Your task to perform on an android device: Show me the alarms in the clock app Image 0: 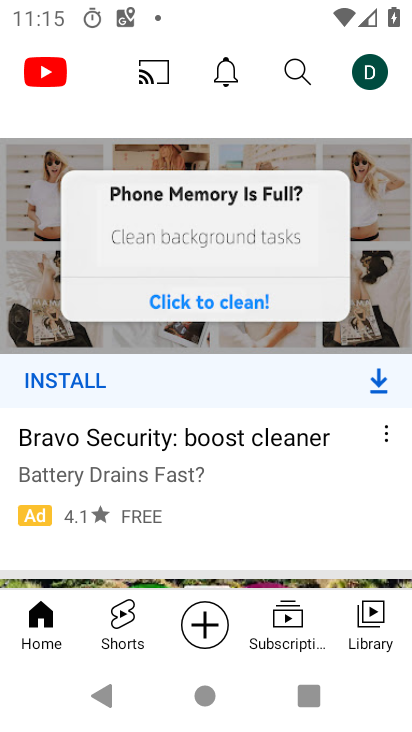
Step 0: press home button
Your task to perform on an android device: Show me the alarms in the clock app Image 1: 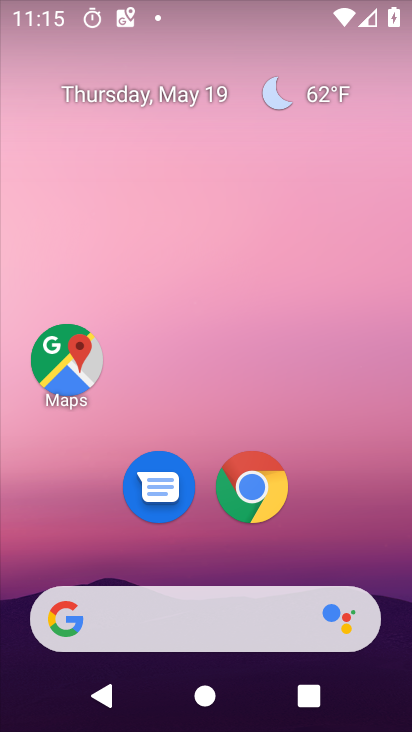
Step 1: drag from (302, 516) to (271, 77)
Your task to perform on an android device: Show me the alarms in the clock app Image 2: 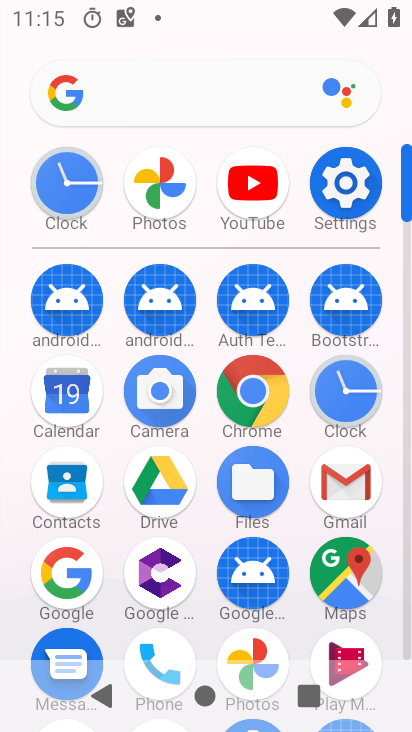
Step 2: click (337, 403)
Your task to perform on an android device: Show me the alarms in the clock app Image 3: 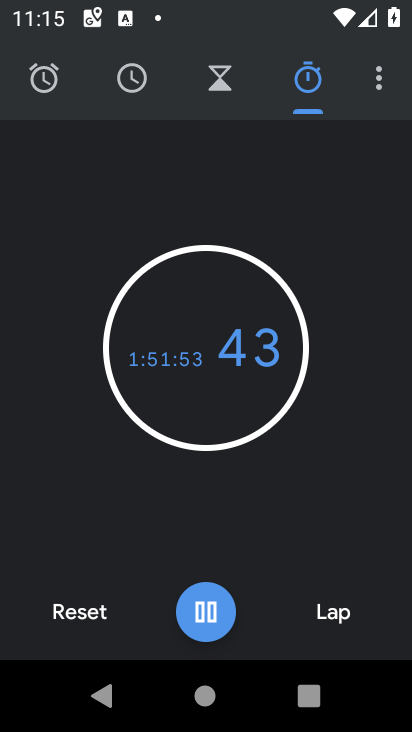
Step 3: click (38, 84)
Your task to perform on an android device: Show me the alarms in the clock app Image 4: 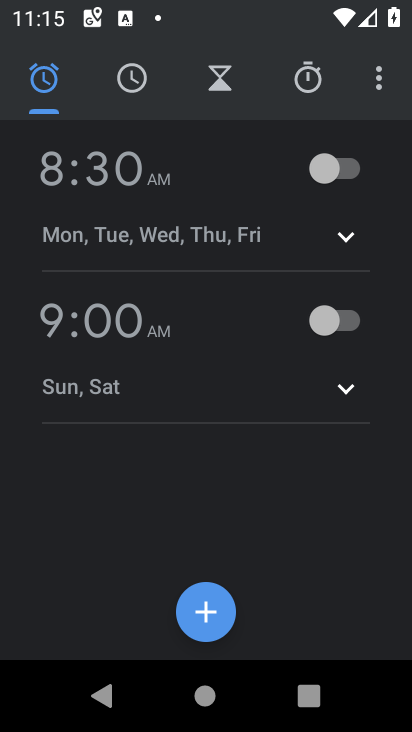
Step 4: task complete